Your task to perform on an android device: Open Google Image 0: 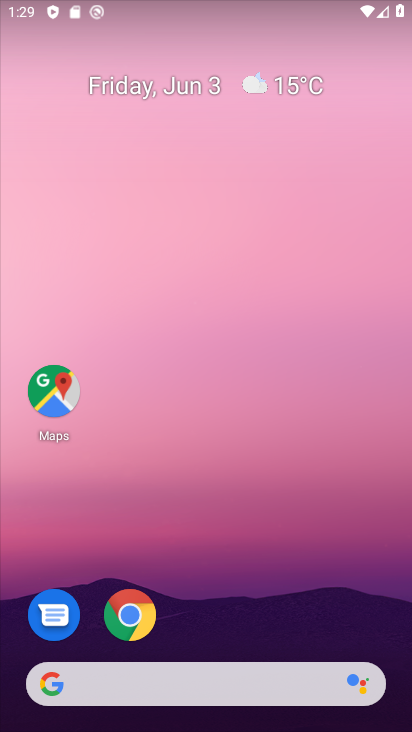
Step 0: drag from (223, 646) to (301, 59)
Your task to perform on an android device: Open Google Image 1: 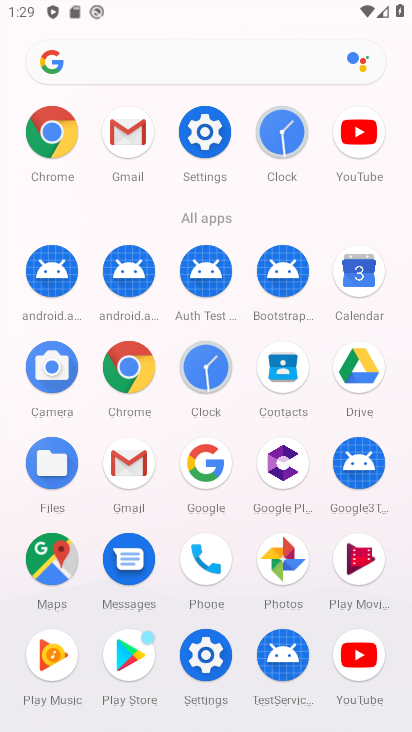
Step 1: click (203, 463)
Your task to perform on an android device: Open Google Image 2: 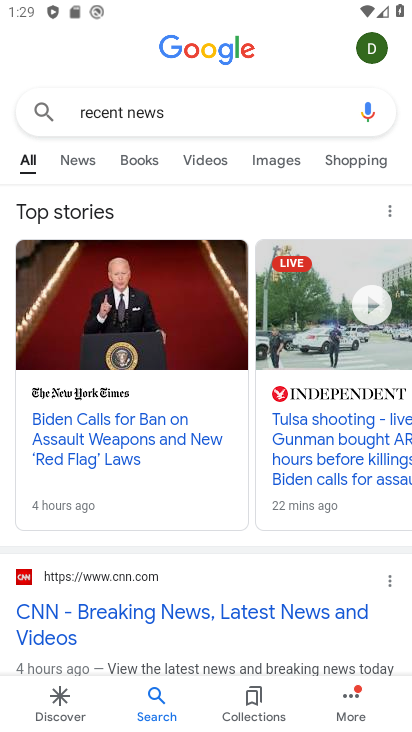
Step 2: task complete